Your task to perform on an android device: When is my next appointment? Image 0: 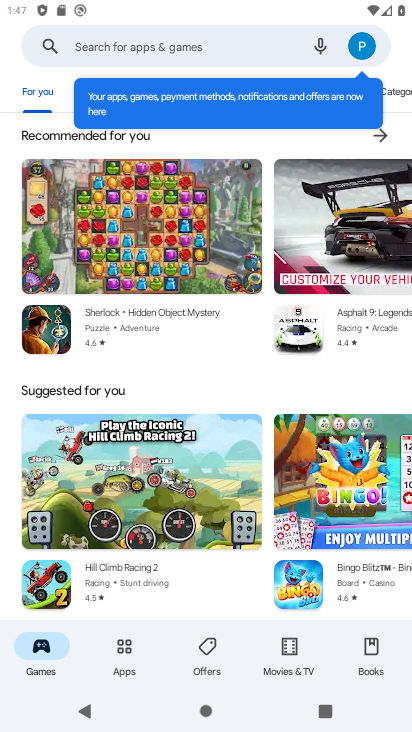
Step 0: press home button
Your task to perform on an android device: When is my next appointment? Image 1: 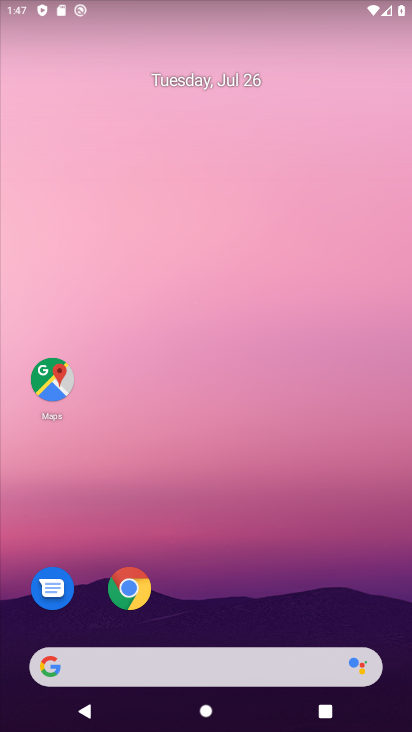
Step 1: drag from (284, 624) to (236, 159)
Your task to perform on an android device: When is my next appointment? Image 2: 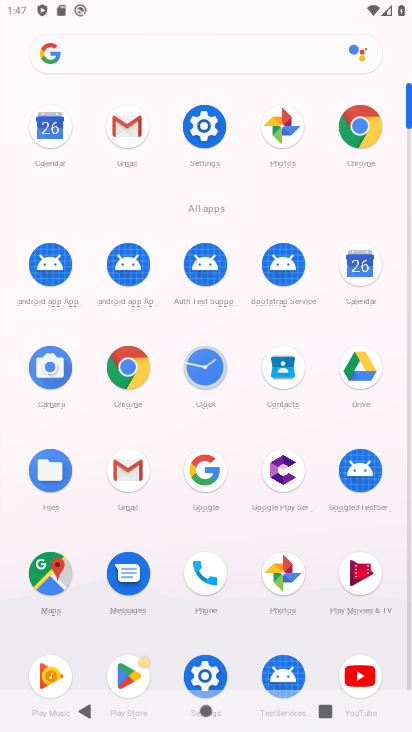
Step 2: click (46, 128)
Your task to perform on an android device: When is my next appointment? Image 3: 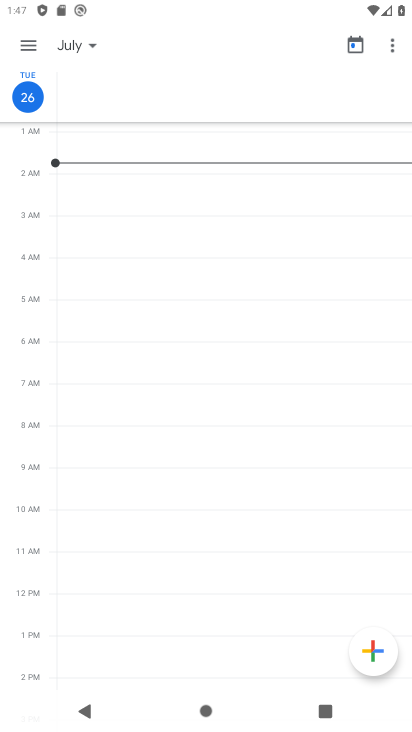
Step 3: click (31, 46)
Your task to perform on an android device: When is my next appointment? Image 4: 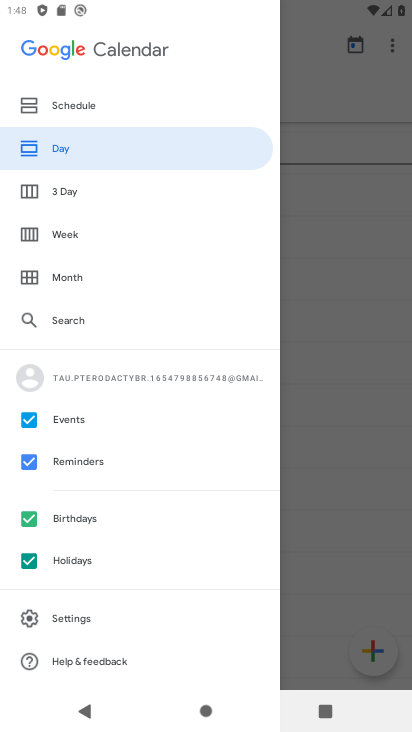
Step 4: click (146, 105)
Your task to perform on an android device: When is my next appointment? Image 5: 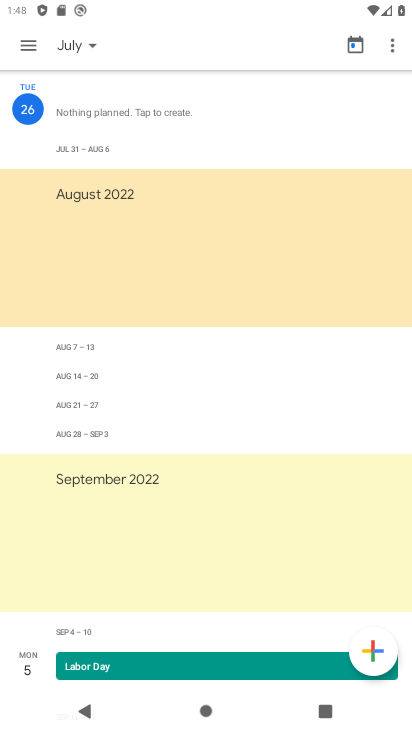
Step 5: task complete